Your task to perform on an android device: turn off wifi Image 0: 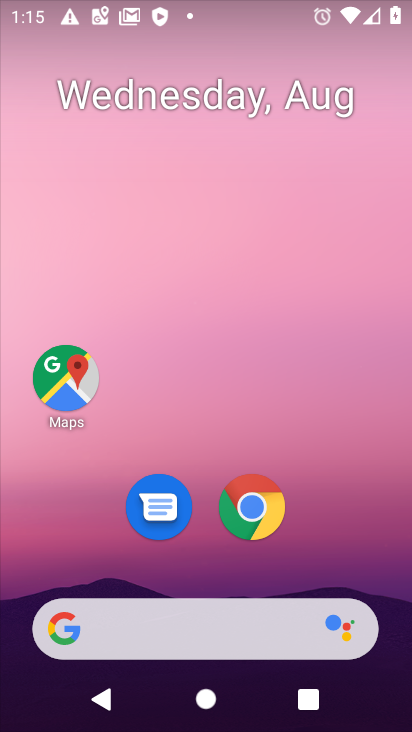
Step 0: drag from (236, 591) to (260, 17)
Your task to perform on an android device: turn off wifi Image 1: 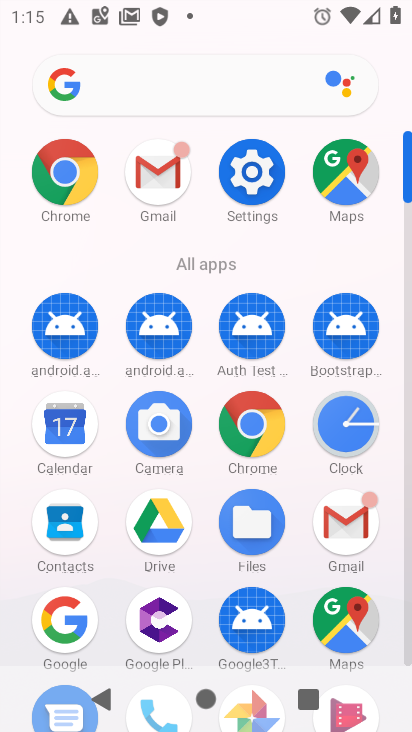
Step 1: click (267, 176)
Your task to perform on an android device: turn off wifi Image 2: 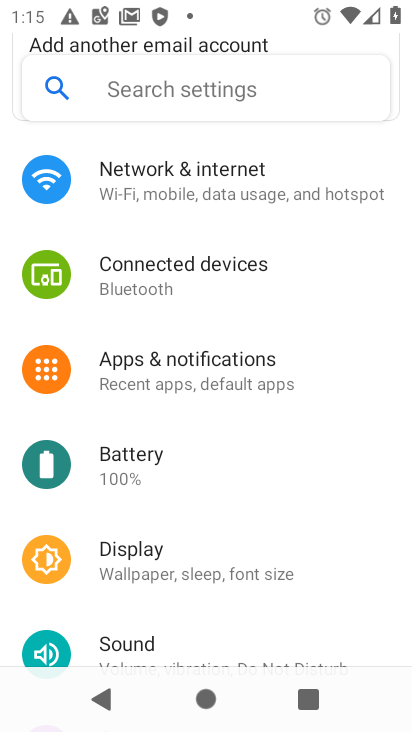
Step 2: drag from (319, 172) to (278, 535)
Your task to perform on an android device: turn off wifi Image 3: 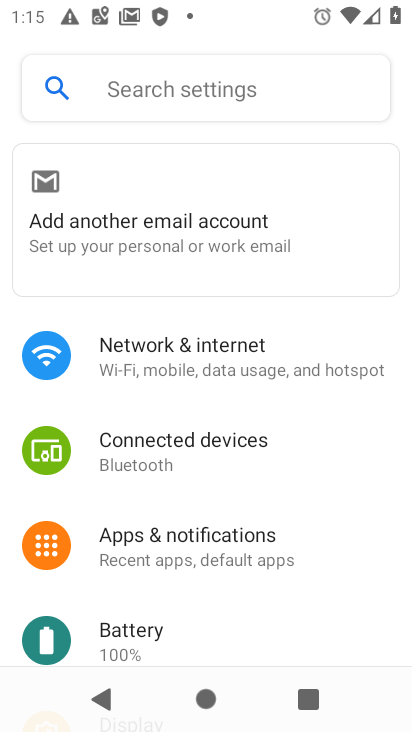
Step 3: click (215, 368)
Your task to perform on an android device: turn off wifi Image 4: 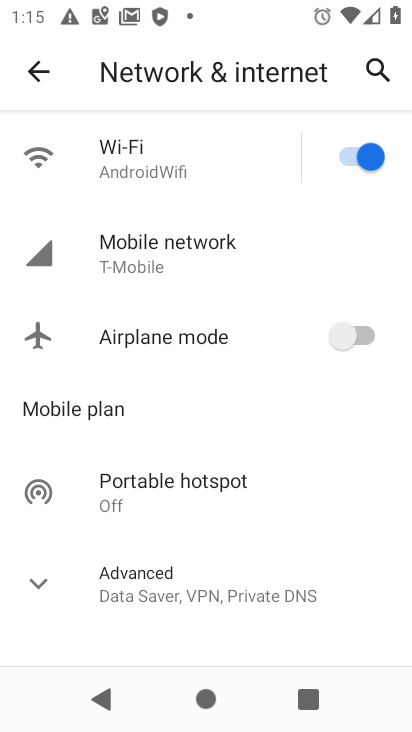
Step 4: click (336, 153)
Your task to perform on an android device: turn off wifi Image 5: 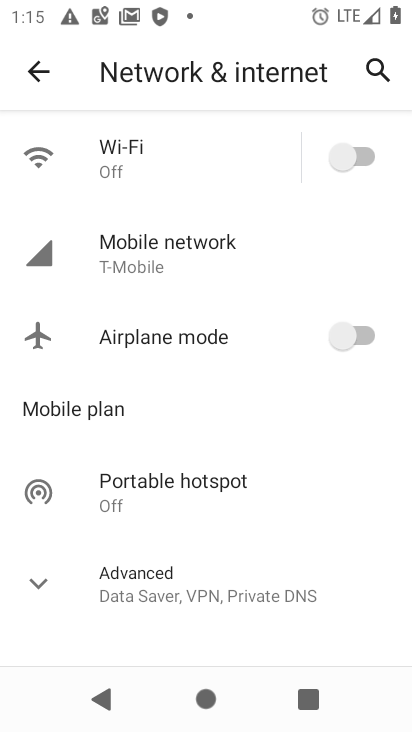
Step 5: task complete